Your task to perform on an android device: Search for pizza restaurants on Maps Image 0: 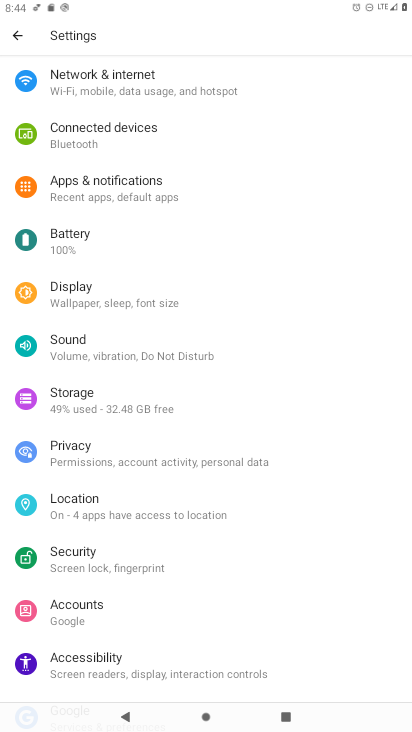
Step 0: press home button
Your task to perform on an android device: Search for pizza restaurants on Maps Image 1: 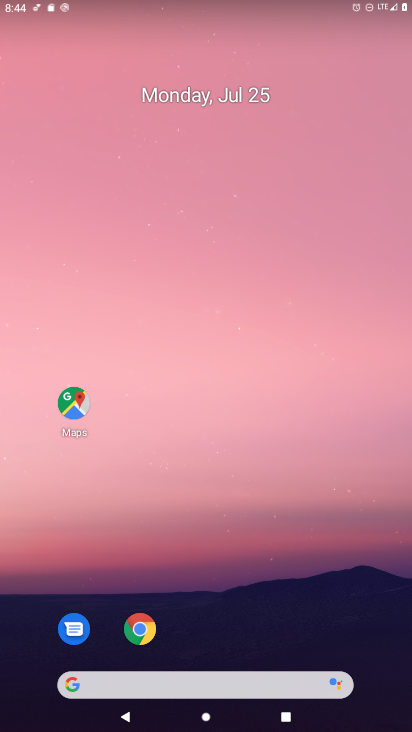
Step 1: click (72, 403)
Your task to perform on an android device: Search for pizza restaurants on Maps Image 2: 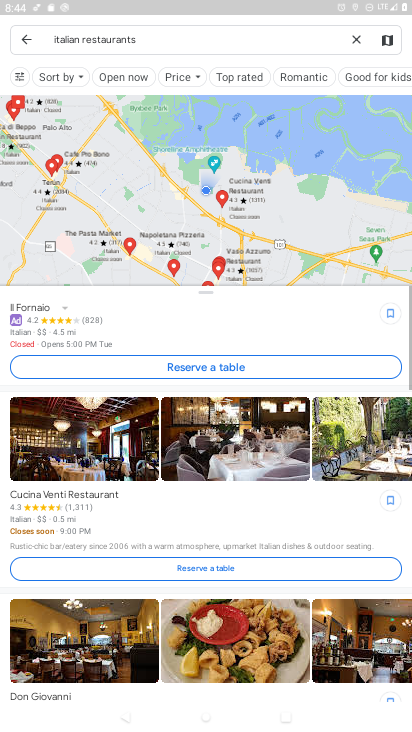
Step 2: click (354, 39)
Your task to perform on an android device: Search for pizza restaurants on Maps Image 3: 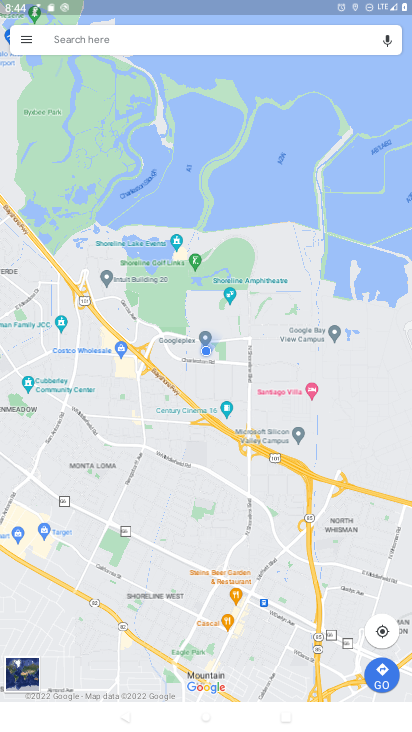
Step 3: click (259, 36)
Your task to perform on an android device: Search for pizza restaurants on Maps Image 4: 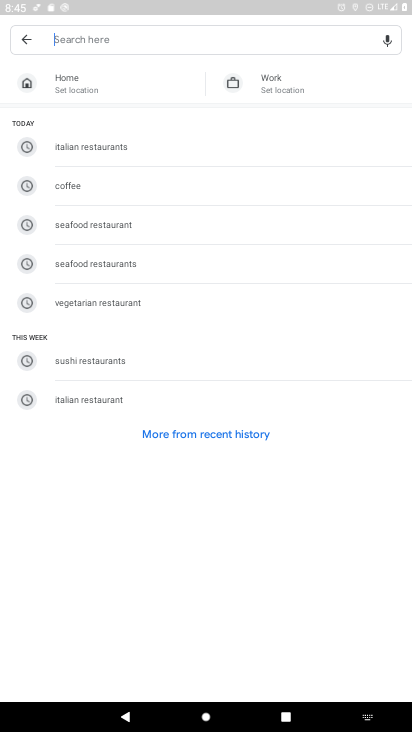
Step 4: type "pizza restaurants"
Your task to perform on an android device: Search for pizza restaurants on Maps Image 5: 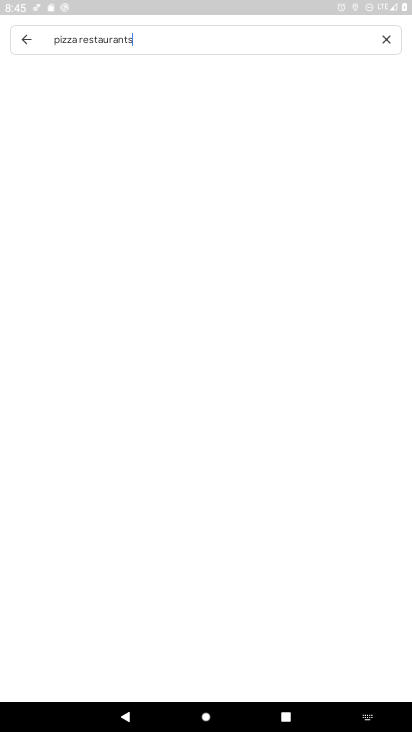
Step 5: type ""
Your task to perform on an android device: Search for pizza restaurants on Maps Image 6: 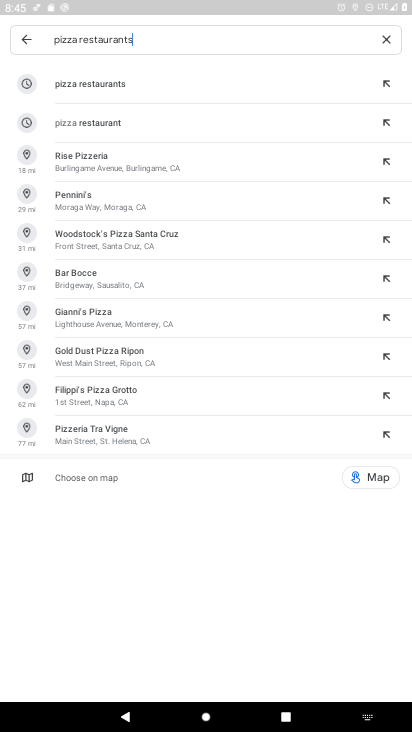
Step 6: click (95, 85)
Your task to perform on an android device: Search for pizza restaurants on Maps Image 7: 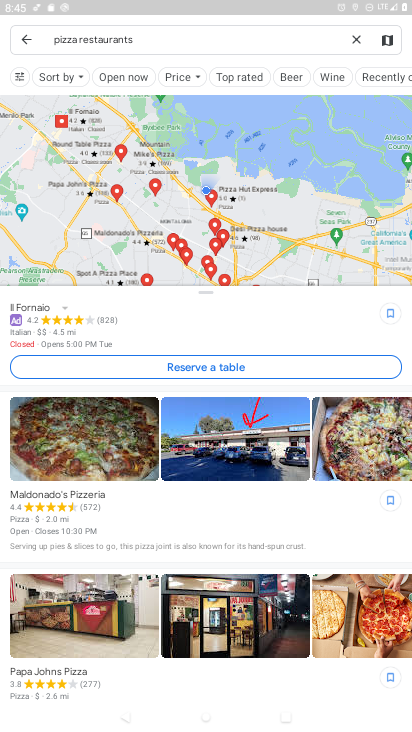
Step 7: task complete